Your task to perform on an android device: change the clock display to digital Image 0: 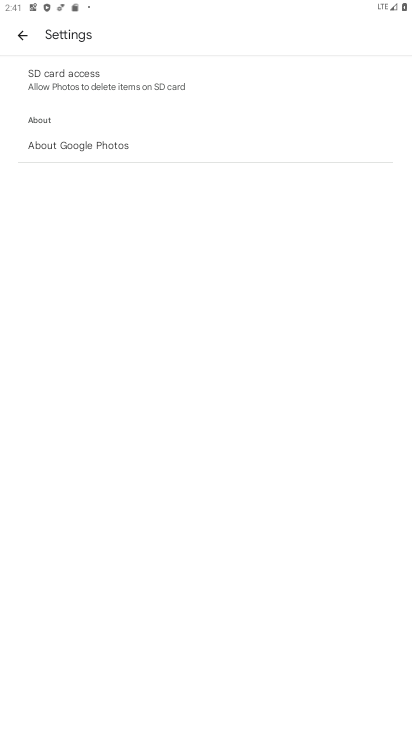
Step 0: press home button
Your task to perform on an android device: change the clock display to digital Image 1: 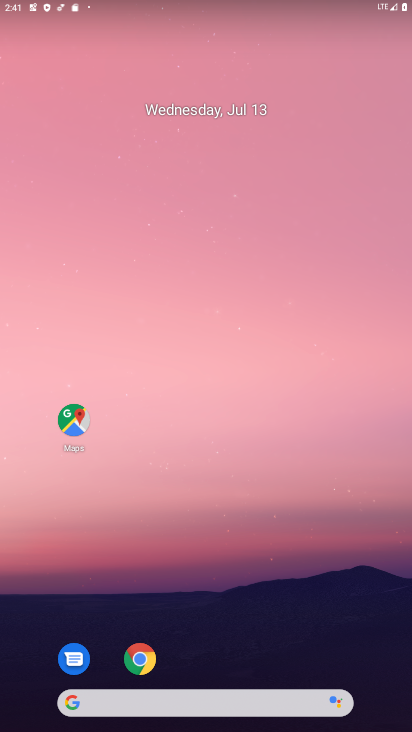
Step 1: drag from (388, 675) to (324, 119)
Your task to perform on an android device: change the clock display to digital Image 2: 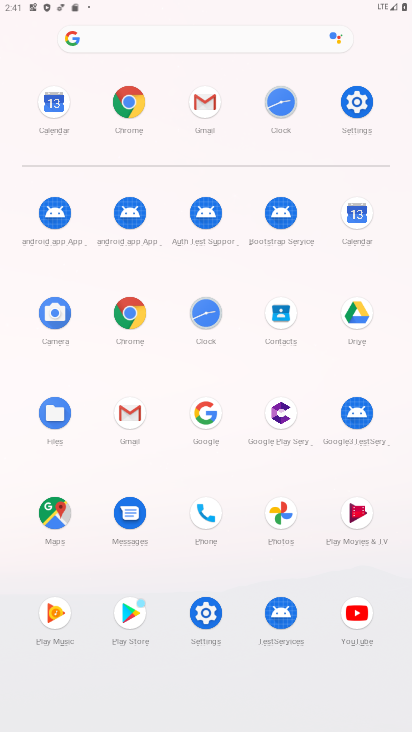
Step 2: click (208, 314)
Your task to perform on an android device: change the clock display to digital Image 3: 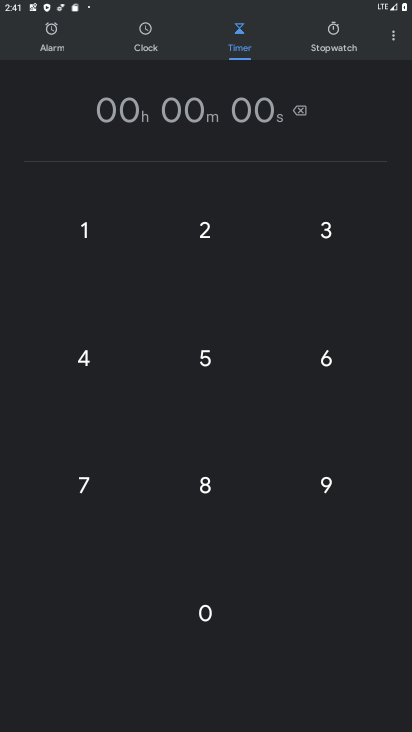
Step 3: click (390, 41)
Your task to perform on an android device: change the clock display to digital Image 4: 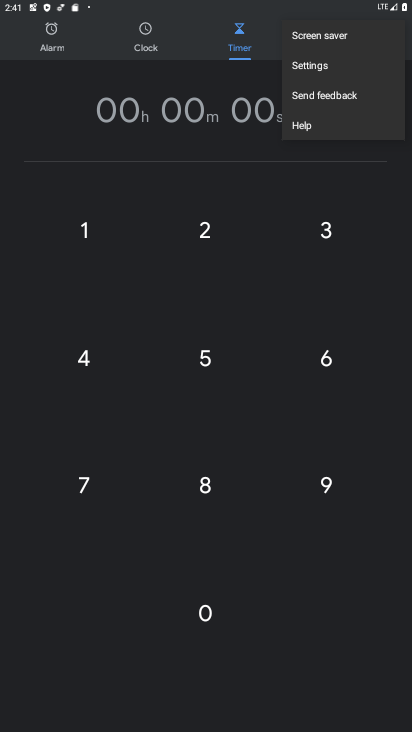
Step 4: click (307, 64)
Your task to perform on an android device: change the clock display to digital Image 5: 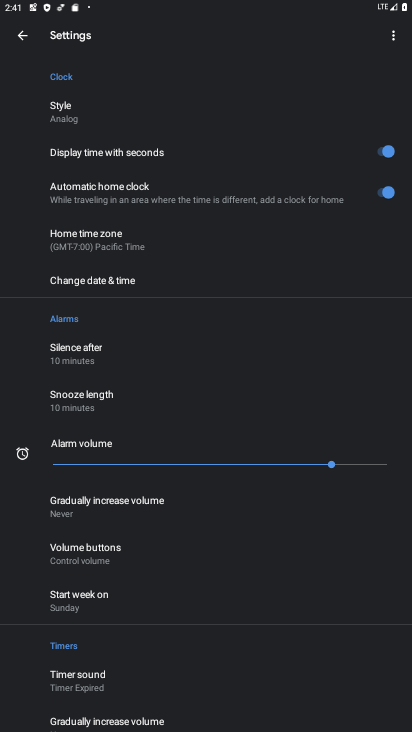
Step 5: click (55, 108)
Your task to perform on an android device: change the clock display to digital Image 6: 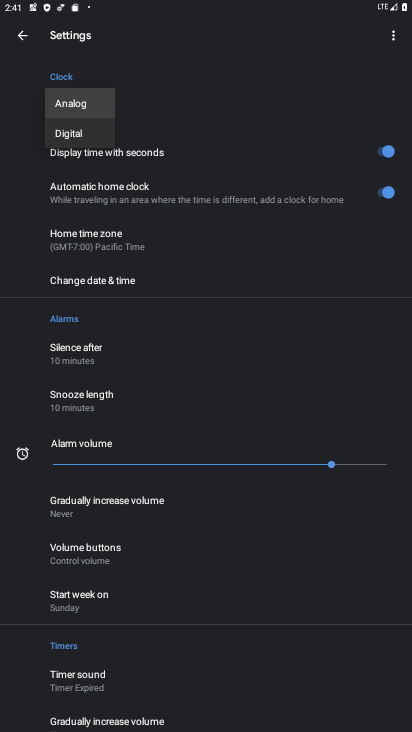
Step 6: click (68, 133)
Your task to perform on an android device: change the clock display to digital Image 7: 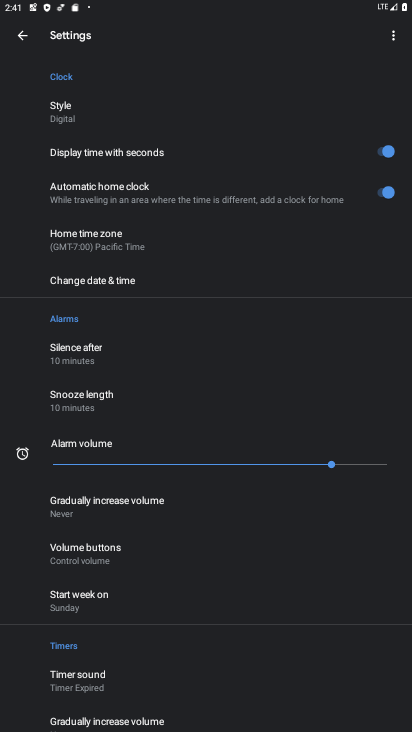
Step 7: task complete